Your task to perform on an android device: Search for vegetarian restaurants on Maps Image 0: 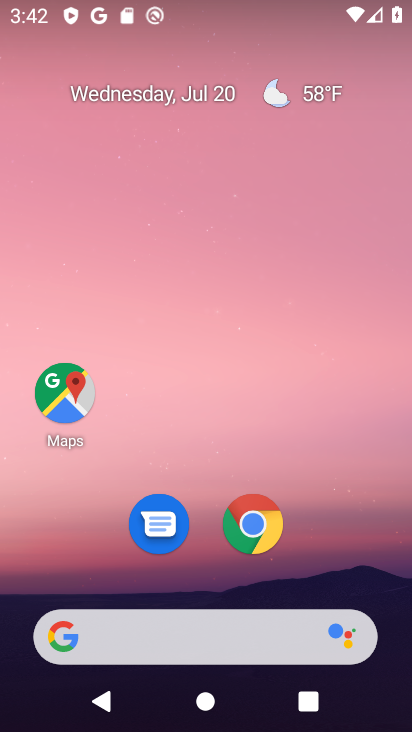
Step 0: click (68, 389)
Your task to perform on an android device: Search for vegetarian restaurants on Maps Image 1: 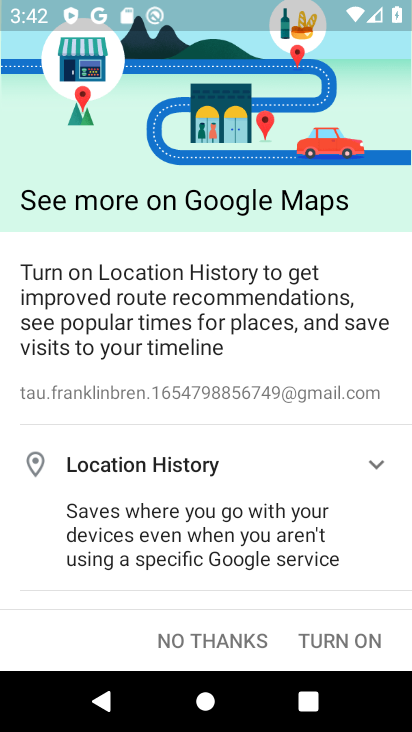
Step 1: click (346, 635)
Your task to perform on an android device: Search for vegetarian restaurants on Maps Image 2: 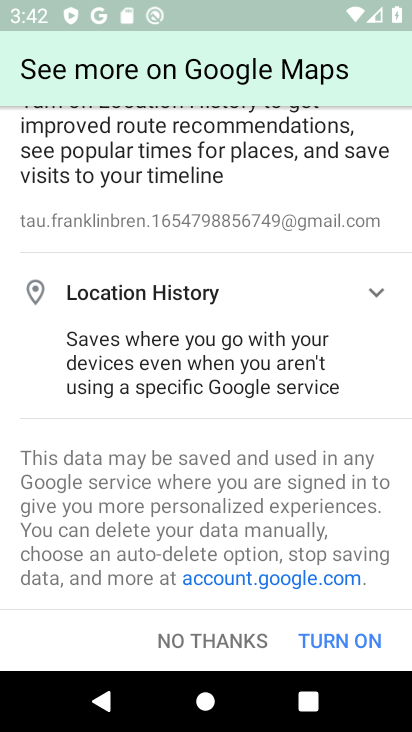
Step 2: click (346, 635)
Your task to perform on an android device: Search for vegetarian restaurants on Maps Image 3: 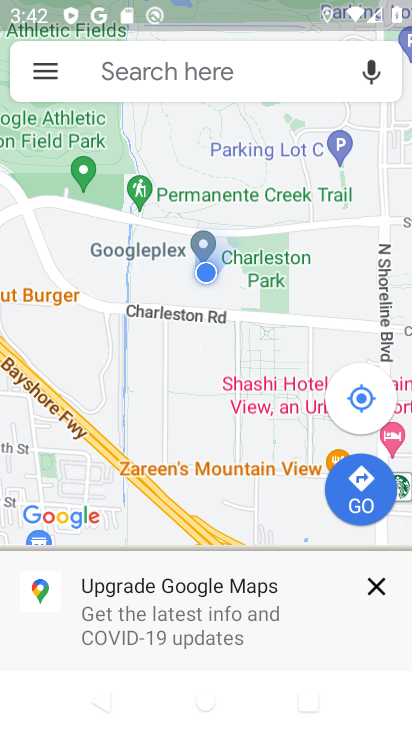
Step 3: click (352, 661)
Your task to perform on an android device: Search for vegetarian restaurants on Maps Image 4: 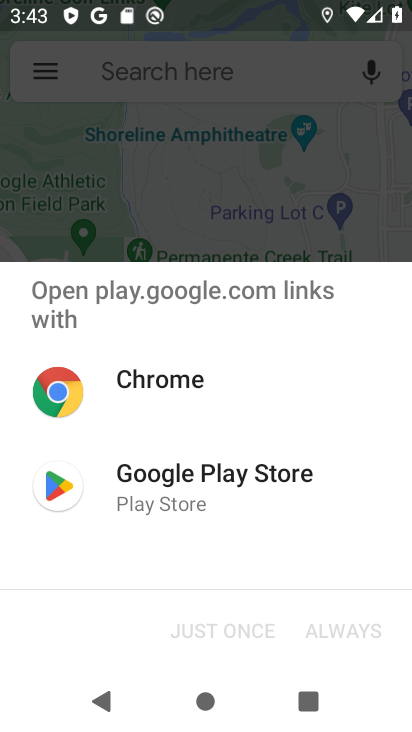
Step 4: click (302, 221)
Your task to perform on an android device: Search for vegetarian restaurants on Maps Image 5: 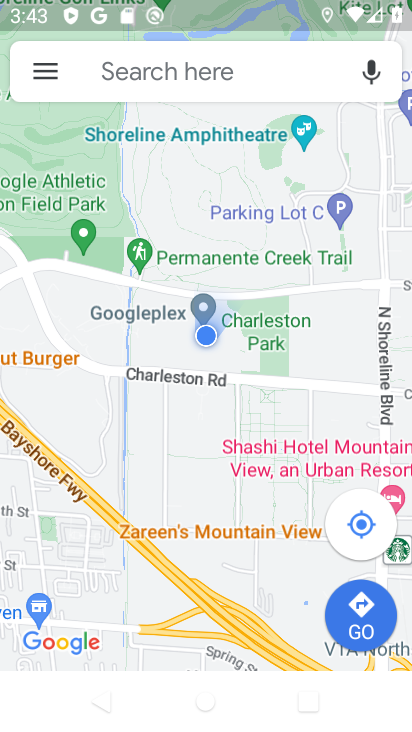
Step 5: click (205, 59)
Your task to perform on an android device: Search for vegetarian restaurants on Maps Image 6: 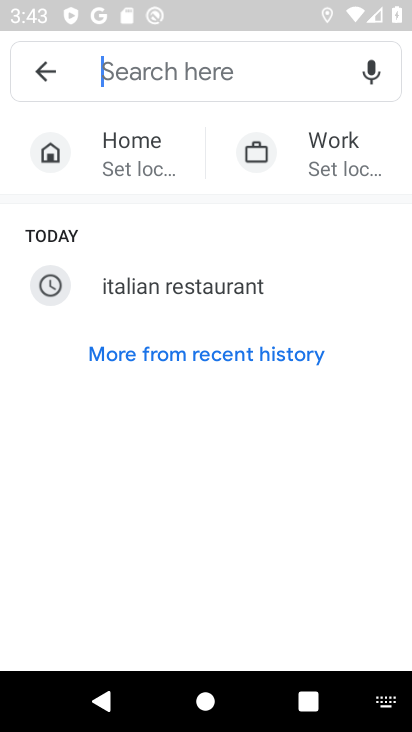
Step 6: click (286, 351)
Your task to perform on an android device: Search for vegetarian restaurants on Maps Image 7: 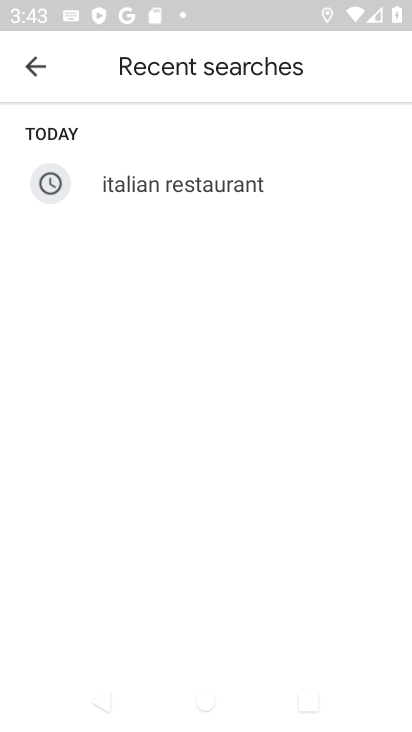
Step 7: click (231, 68)
Your task to perform on an android device: Search for vegetarian restaurants on Maps Image 8: 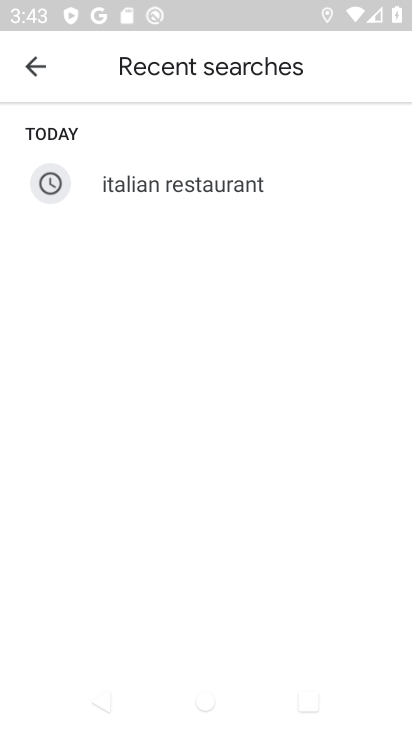
Step 8: click (231, 66)
Your task to perform on an android device: Search for vegetarian restaurants on Maps Image 9: 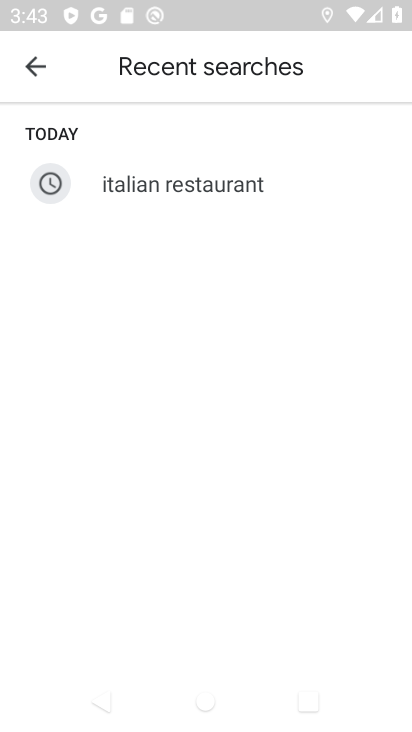
Step 9: click (38, 64)
Your task to perform on an android device: Search for vegetarian restaurants on Maps Image 10: 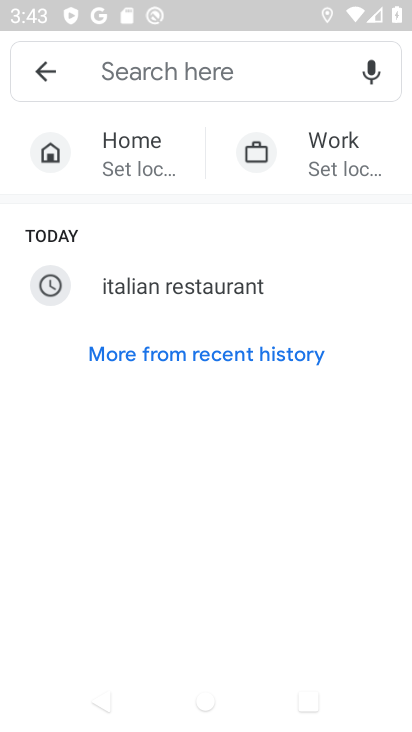
Step 10: click (173, 60)
Your task to perform on an android device: Search for vegetarian restaurants on Maps Image 11: 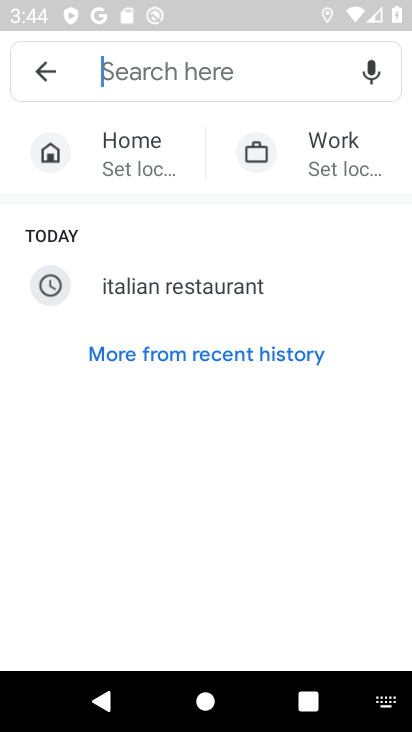
Step 11: type "vegetarian restaurants"
Your task to perform on an android device: Search for vegetarian restaurants on Maps Image 12: 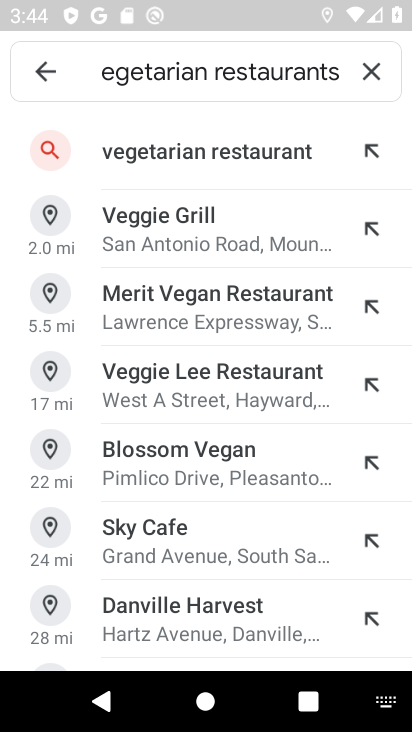
Step 12: click (270, 146)
Your task to perform on an android device: Search for vegetarian restaurants on Maps Image 13: 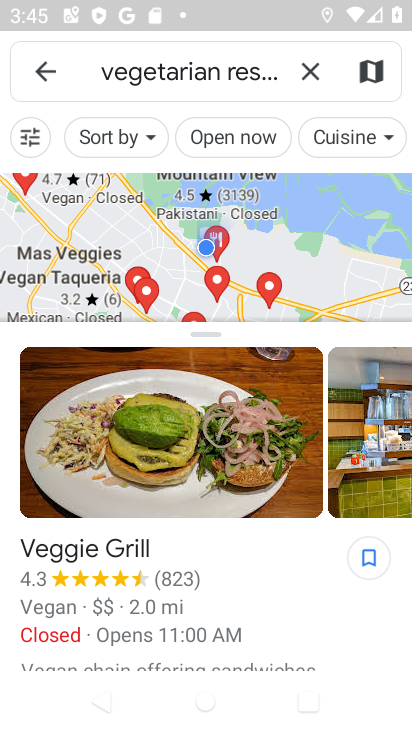
Step 13: task complete